Your task to perform on an android device: turn on bluetooth scan Image 0: 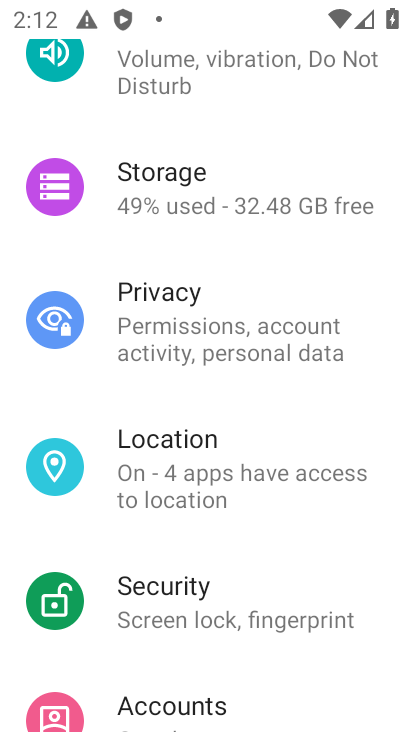
Step 0: click (189, 450)
Your task to perform on an android device: turn on bluetooth scan Image 1: 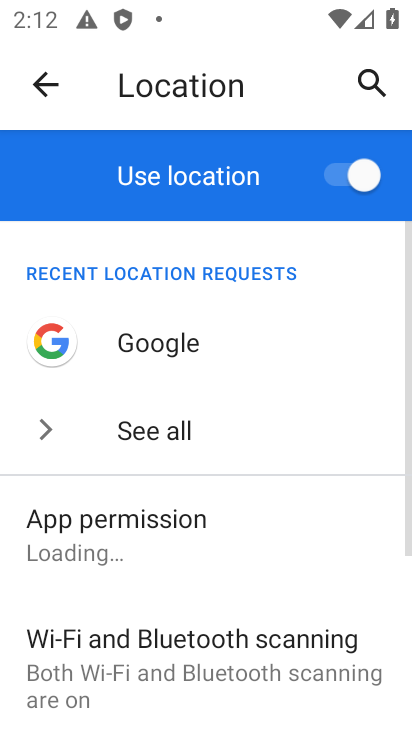
Step 1: click (151, 668)
Your task to perform on an android device: turn on bluetooth scan Image 2: 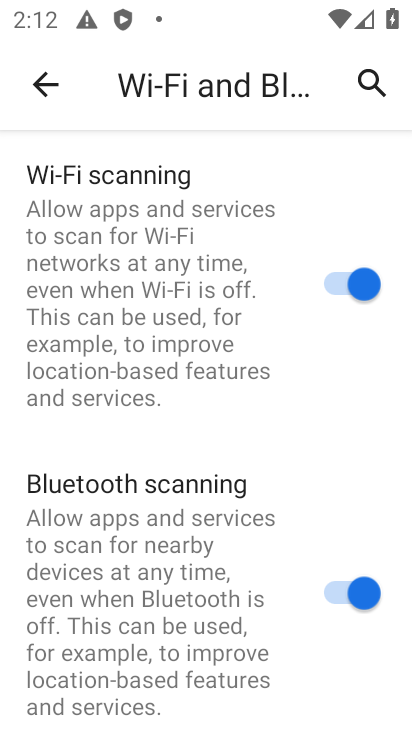
Step 2: task complete